Your task to perform on an android device: Go to Google maps Image 0: 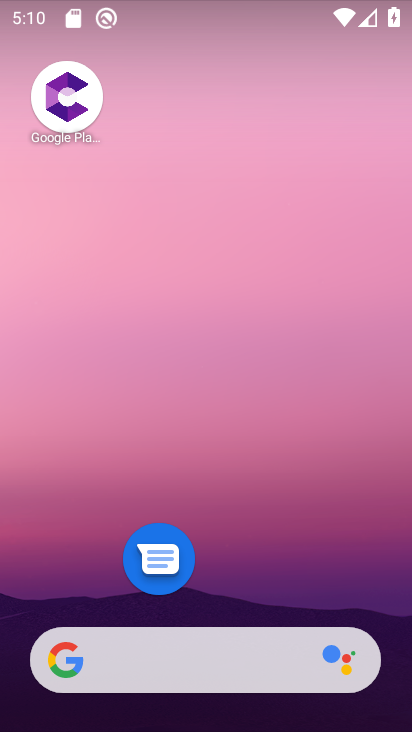
Step 0: drag from (284, 729) to (271, 327)
Your task to perform on an android device: Go to Google maps Image 1: 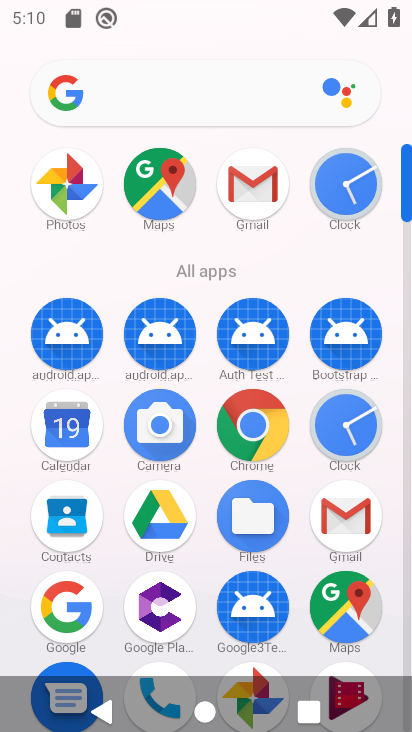
Step 1: click (154, 209)
Your task to perform on an android device: Go to Google maps Image 2: 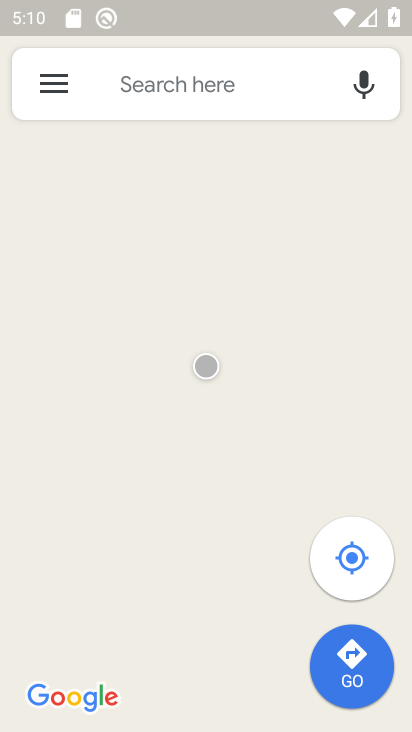
Step 2: task complete